Your task to perform on an android device: snooze an email in the gmail app Image 0: 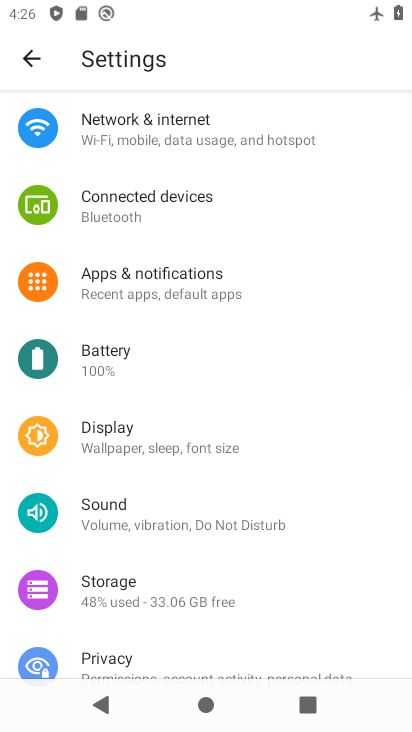
Step 0: press home button
Your task to perform on an android device: snooze an email in the gmail app Image 1: 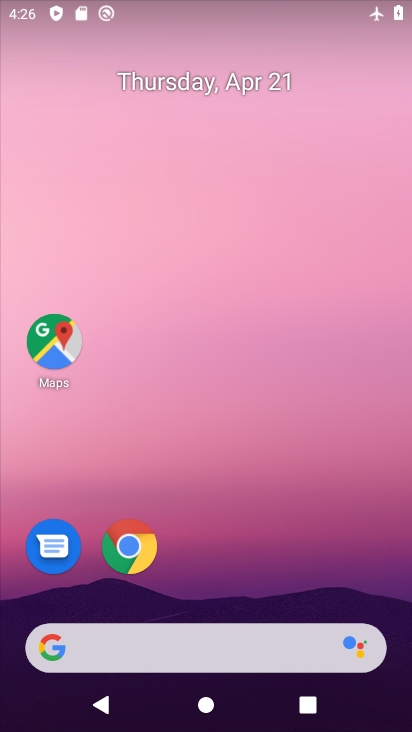
Step 1: drag from (268, 500) to (276, 29)
Your task to perform on an android device: snooze an email in the gmail app Image 2: 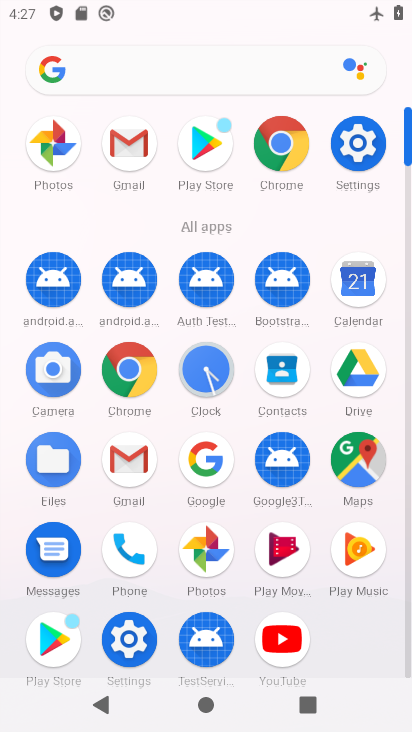
Step 2: click (113, 464)
Your task to perform on an android device: snooze an email in the gmail app Image 3: 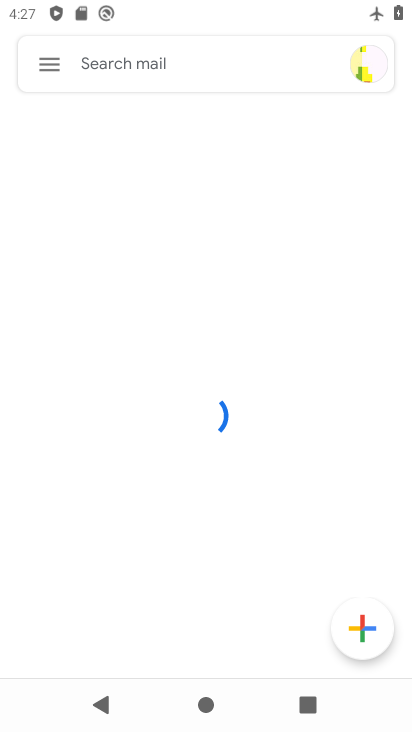
Step 3: click (61, 67)
Your task to perform on an android device: snooze an email in the gmail app Image 4: 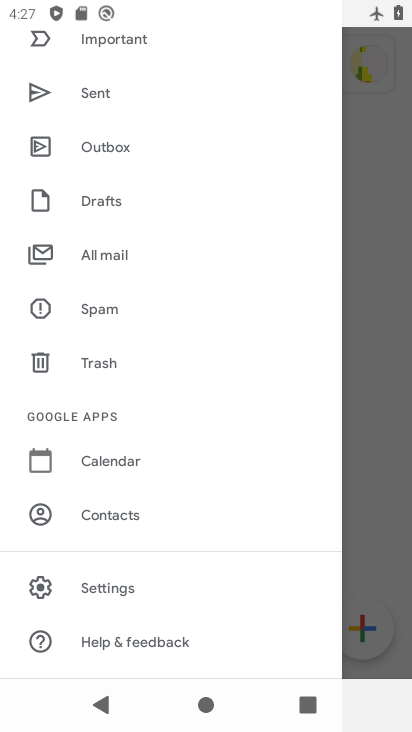
Step 4: click (118, 257)
Your task to perform on an android device: snooze an email in the gmail app Image 5: 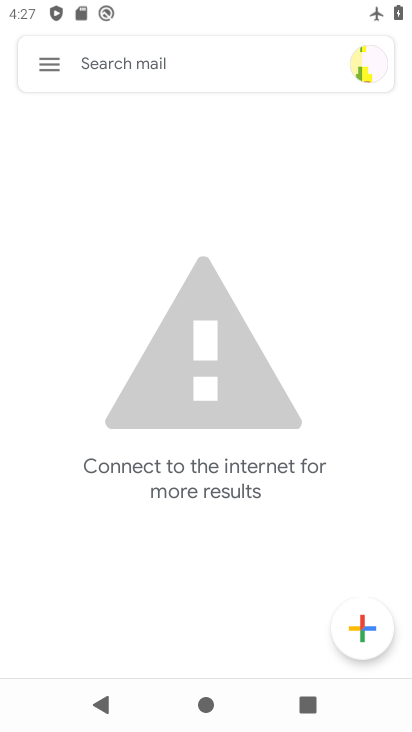
Step 5: task complete